Your task to perform on an android device: Add dell xps to the cart on amazon Image 0: 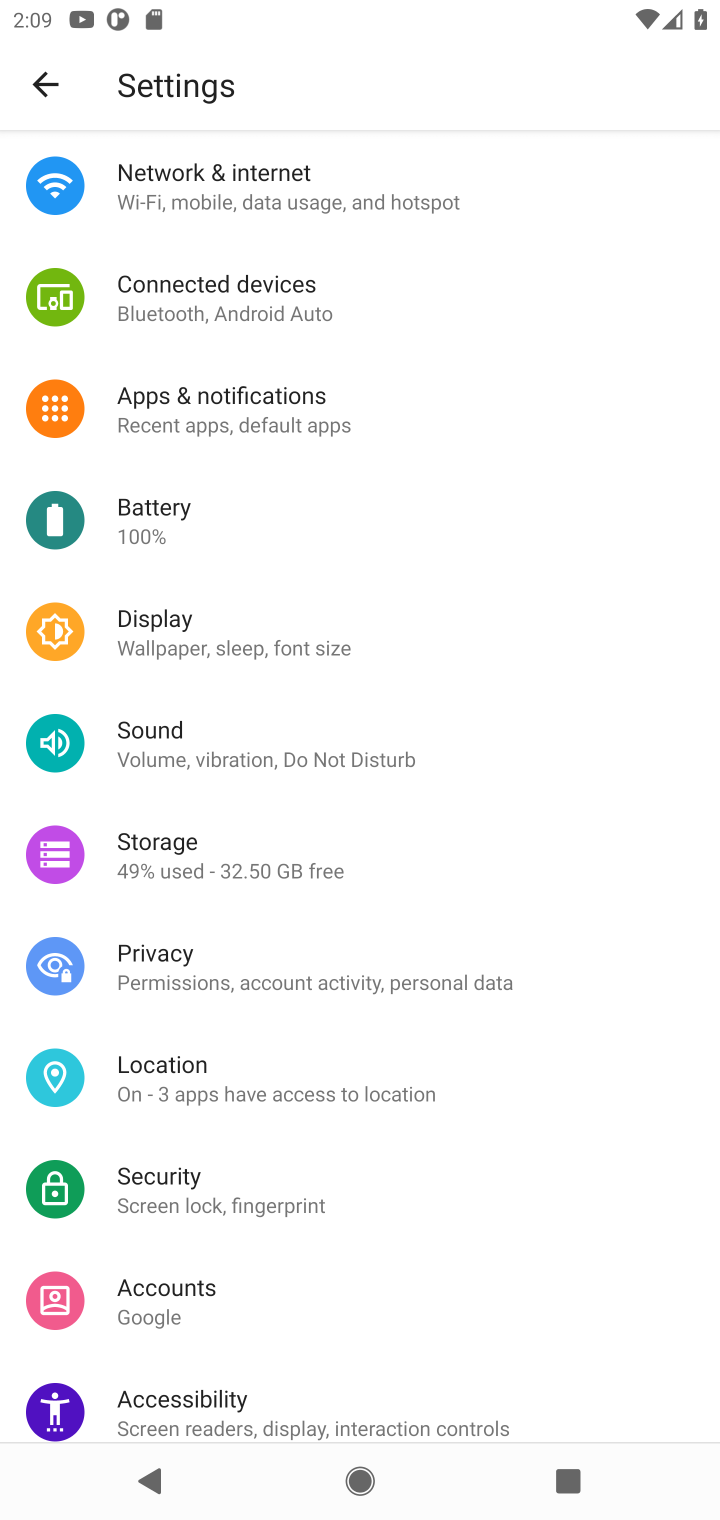
Step 0: press home button
Your task to perform on an android device: Add dell xps to the cart on amazon Image 1: 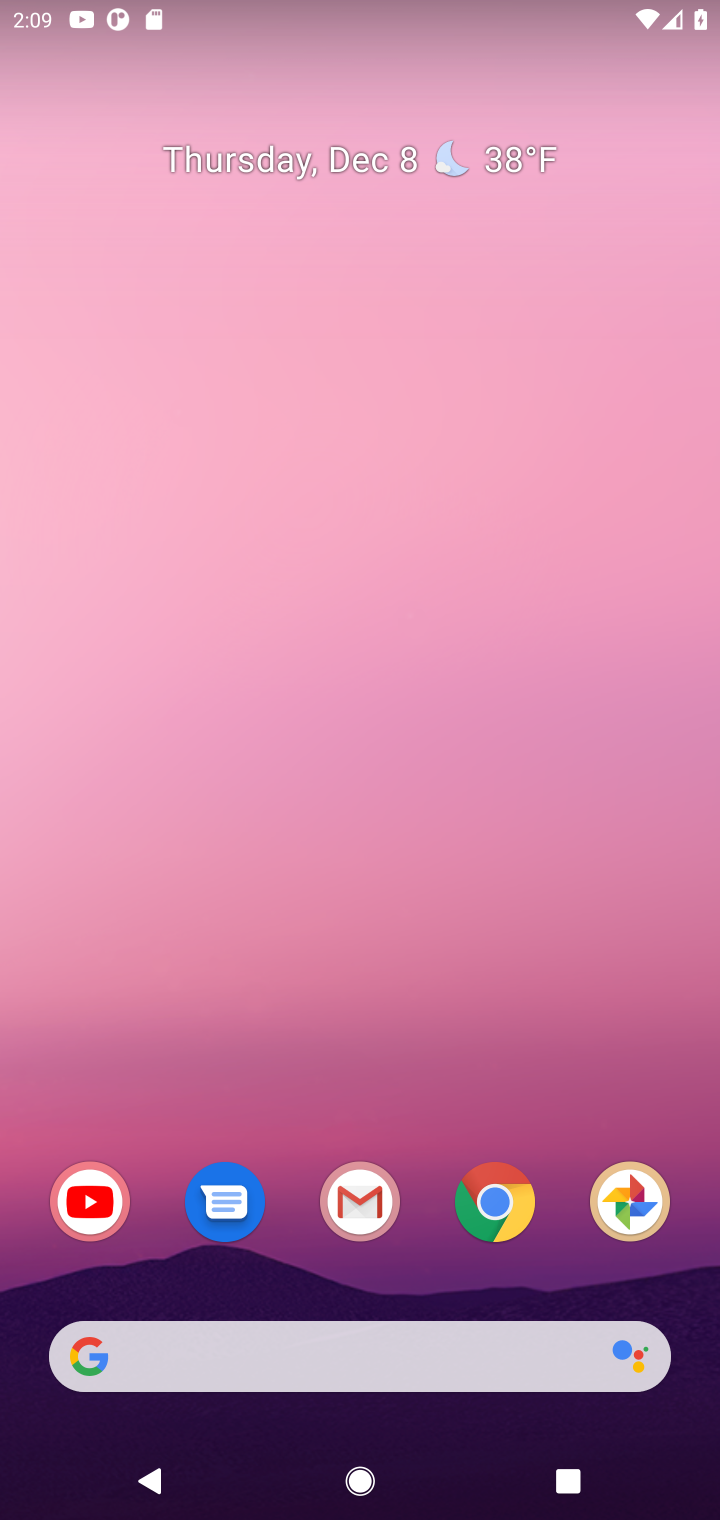
Step 1: click (497, 1215)
Your task to perform on an android device: Add dell xps to the cart on amazon Image 2: 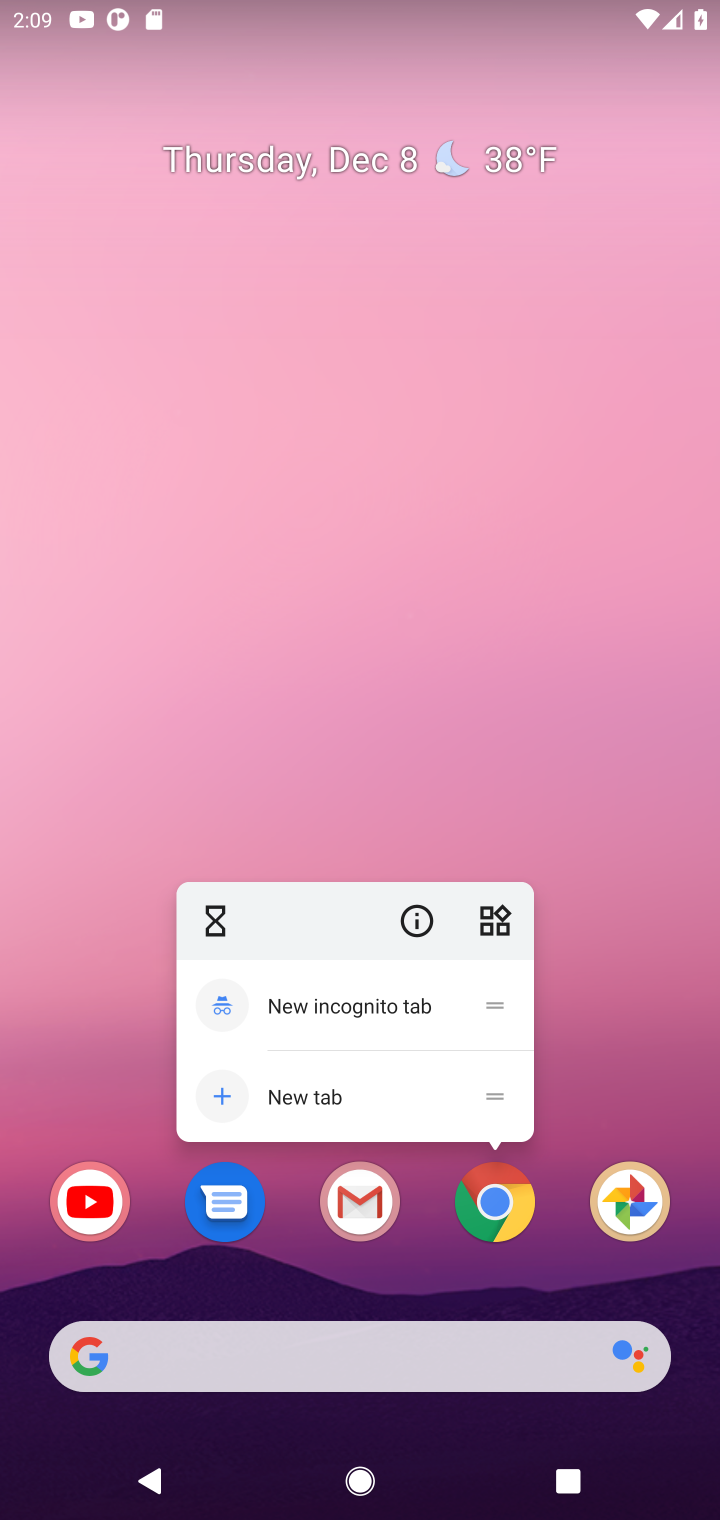
Step 2: click (497, 1215)
Your task to perform on an android device: Add dell xps to the cart on amazon Image 3: 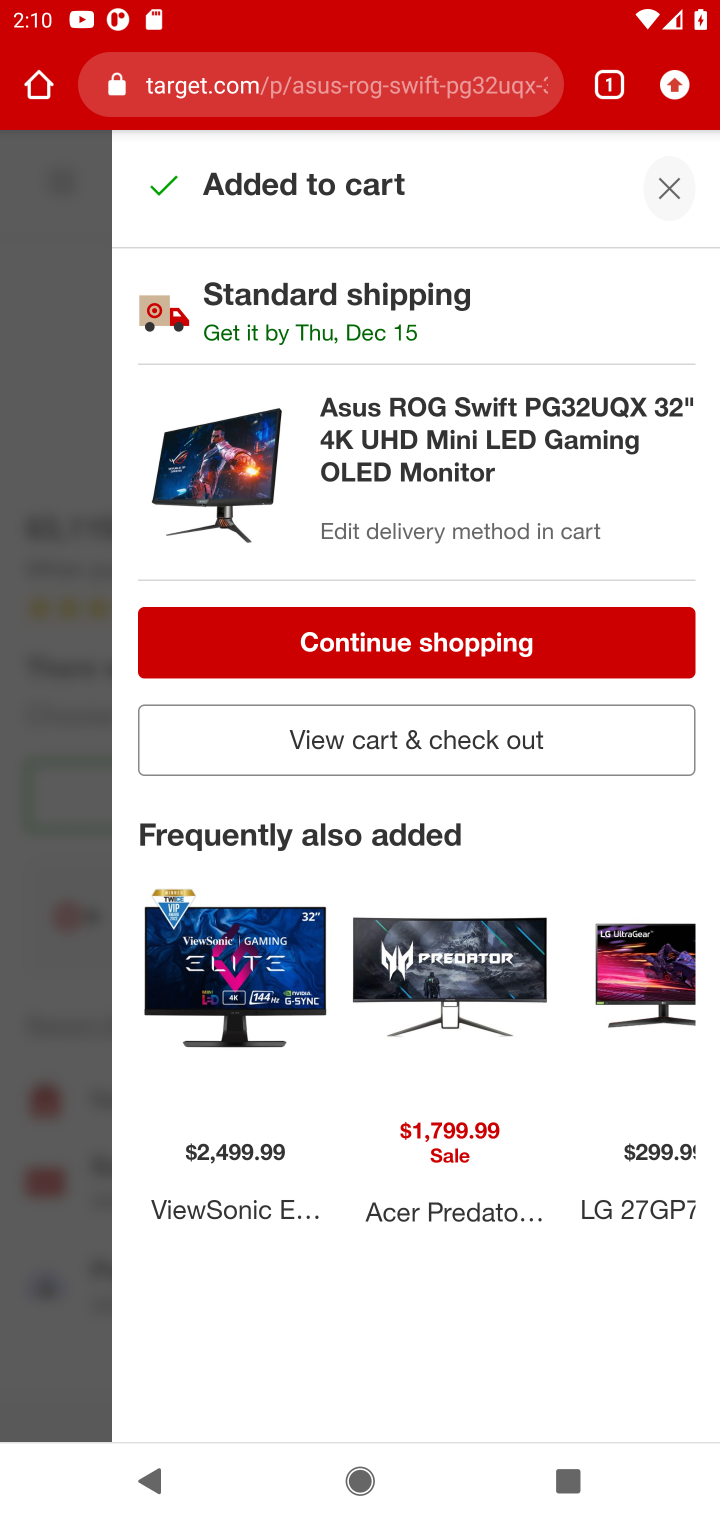
Step 3: click (401, 71)
Your task to perform on an android device: Add dell xps to the cart on amazon Image 4: 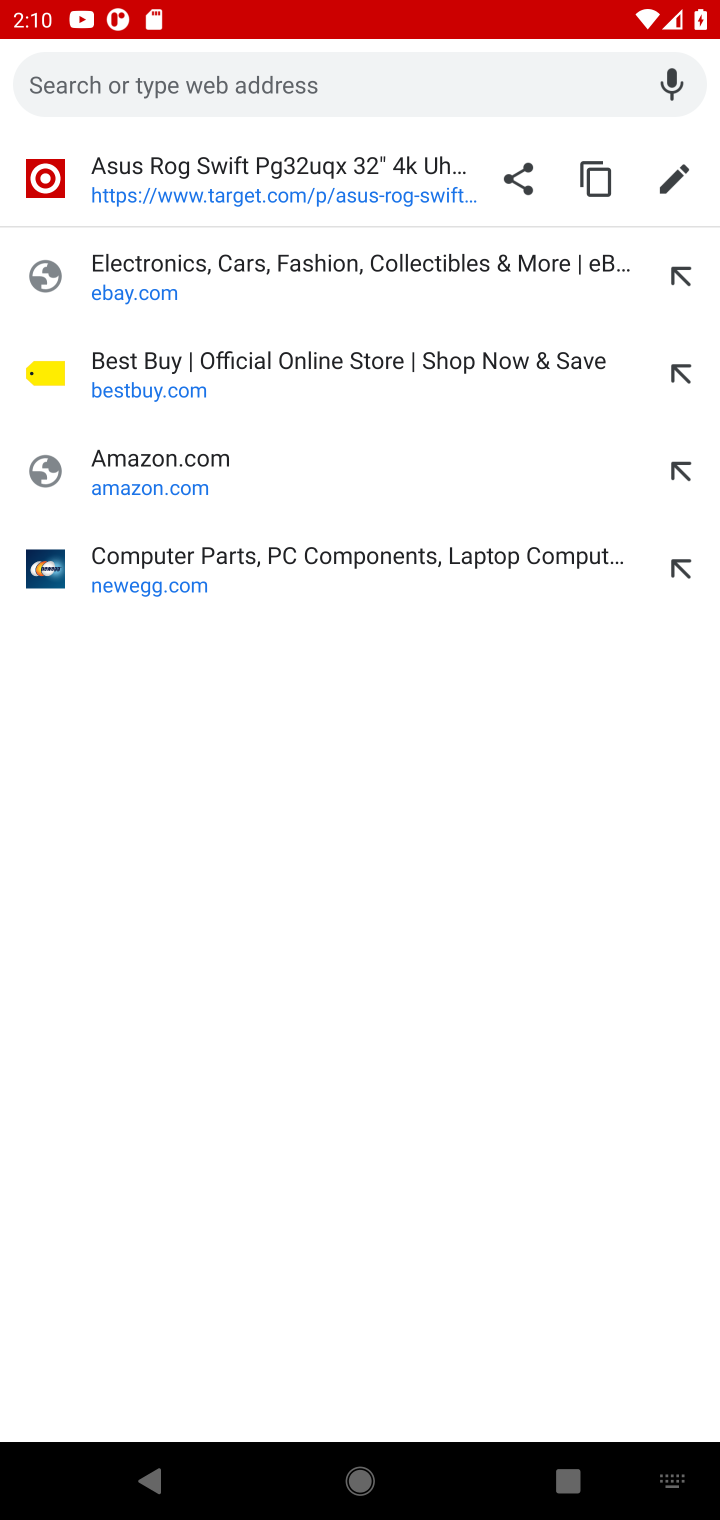
Step 4: type "amazon"
Your task to perform on an android device: Add dell xps to the cart on amazon Image 5: 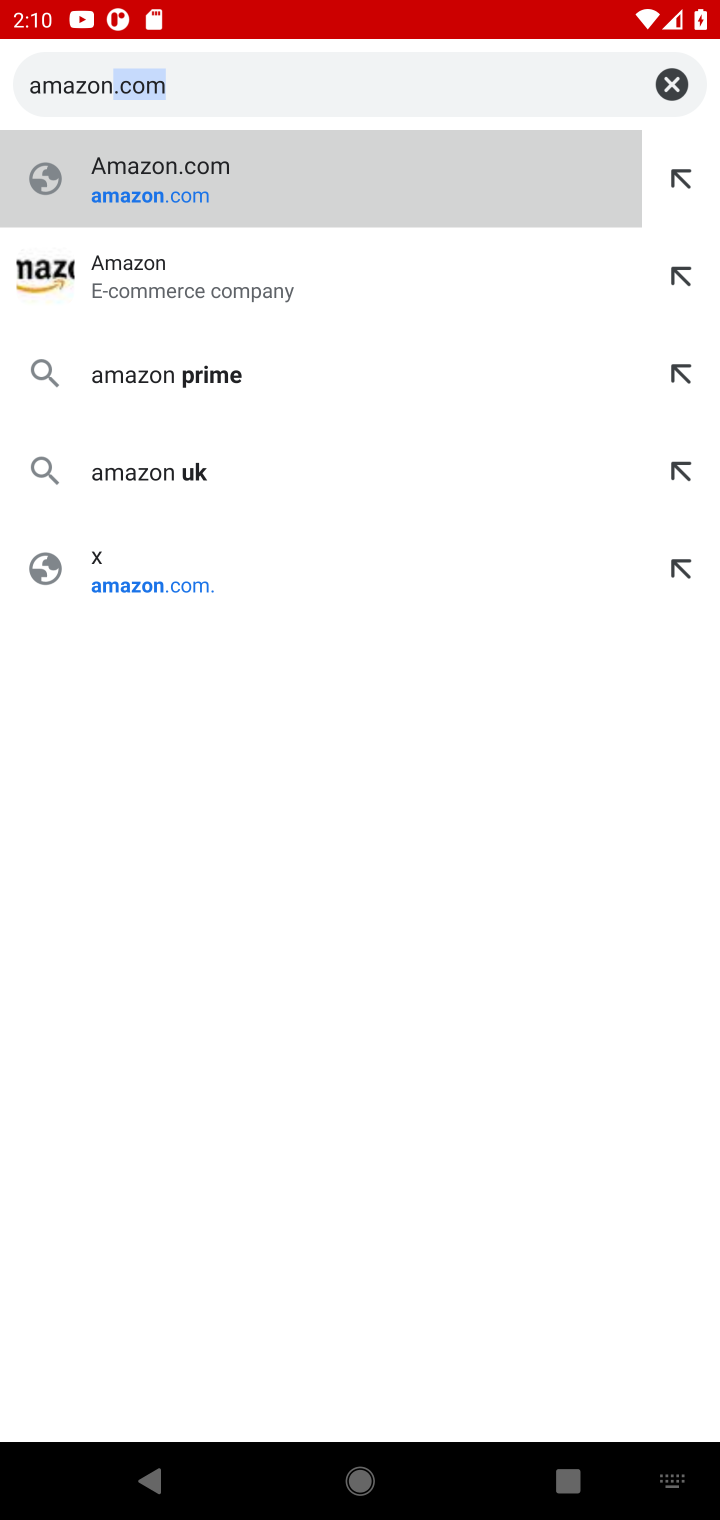
Step 5: click (323, 172)
Your task to perform on an android device: Add dell xps to the cart on amazon Image 6: 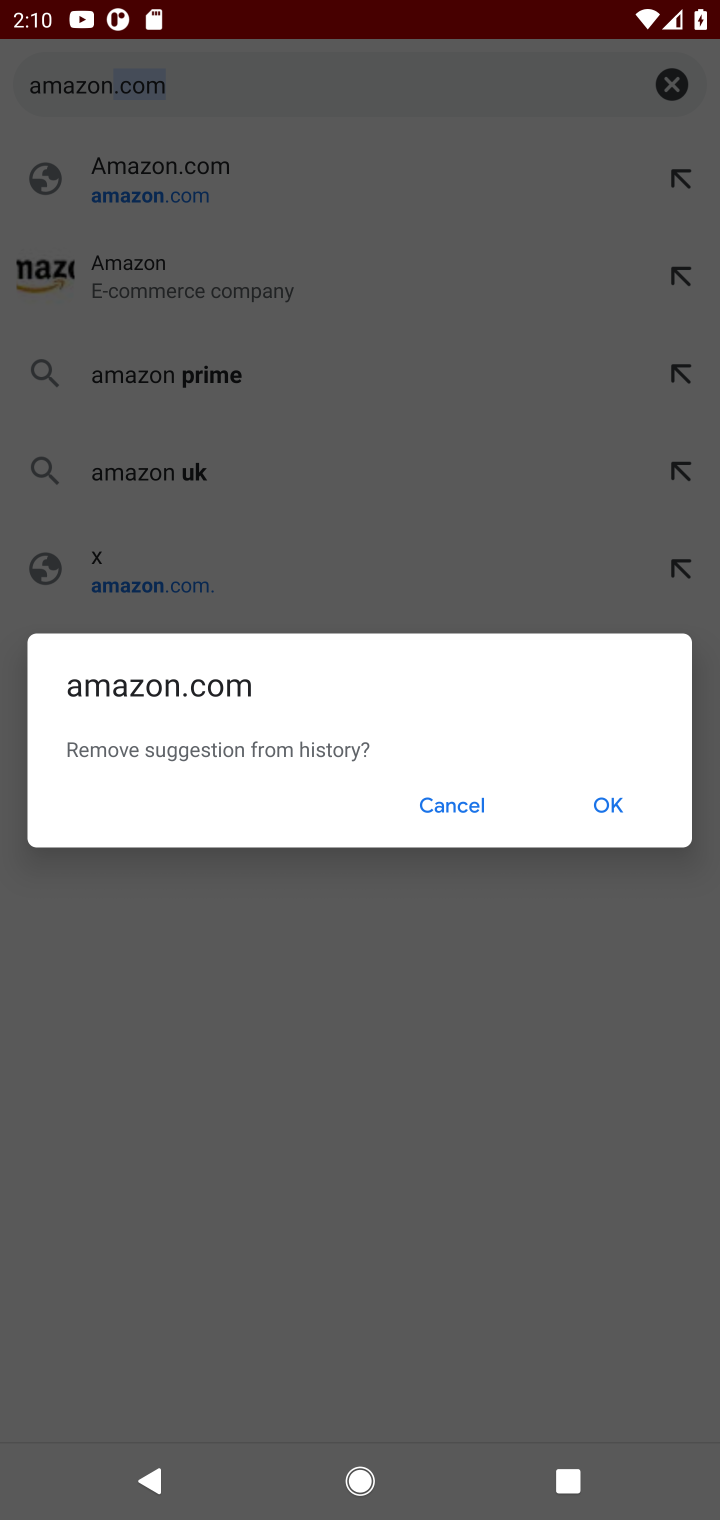
Step 6: click (605, 802)
Your task to perform on an android device: Add dell xps to the cart on amazon Image 7: 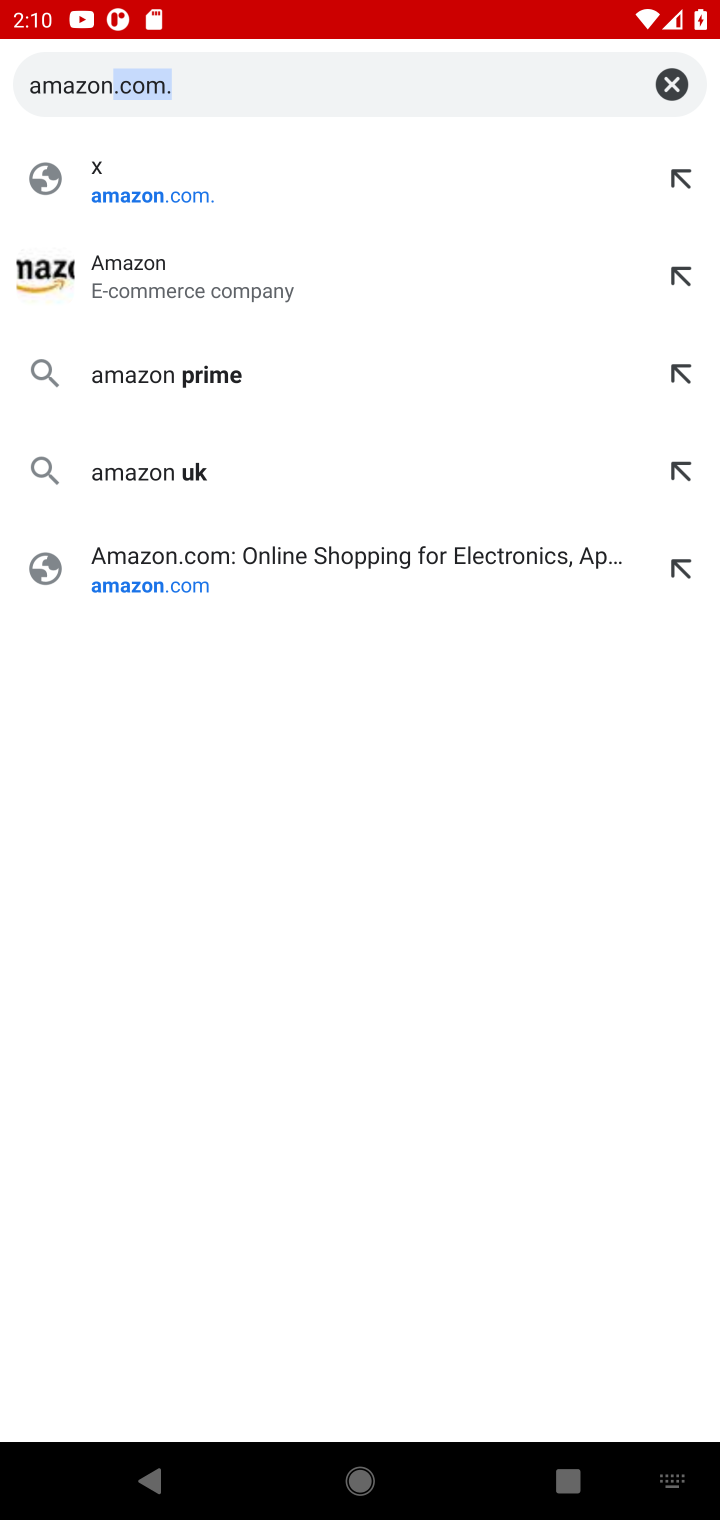
Step 7: click (225, 87)
Your task to perform on an android device: Add dell xps to the cart on amazon Image 8: 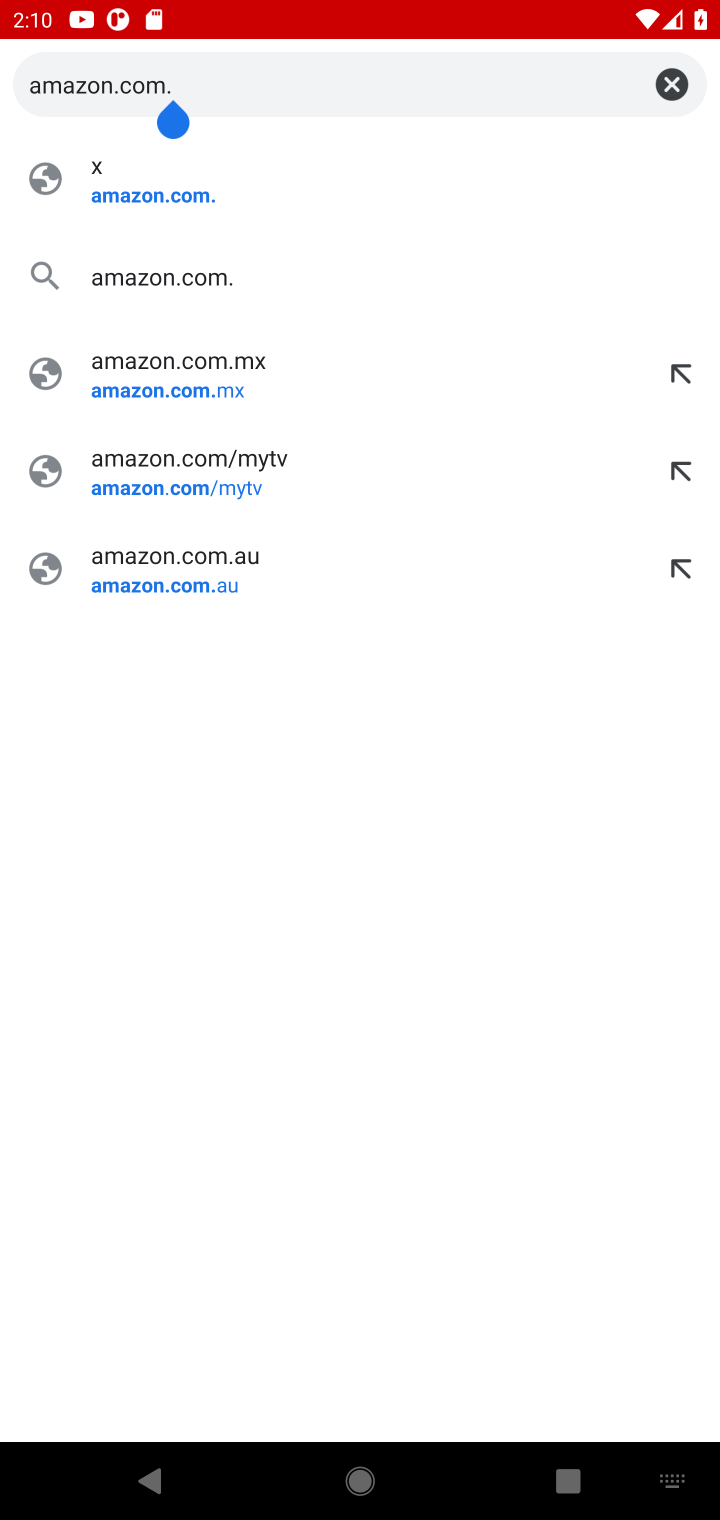
Step 8: click (201, 273)
Your task to perform on an android device: Add dell xps to the cart on amazon Image 9: 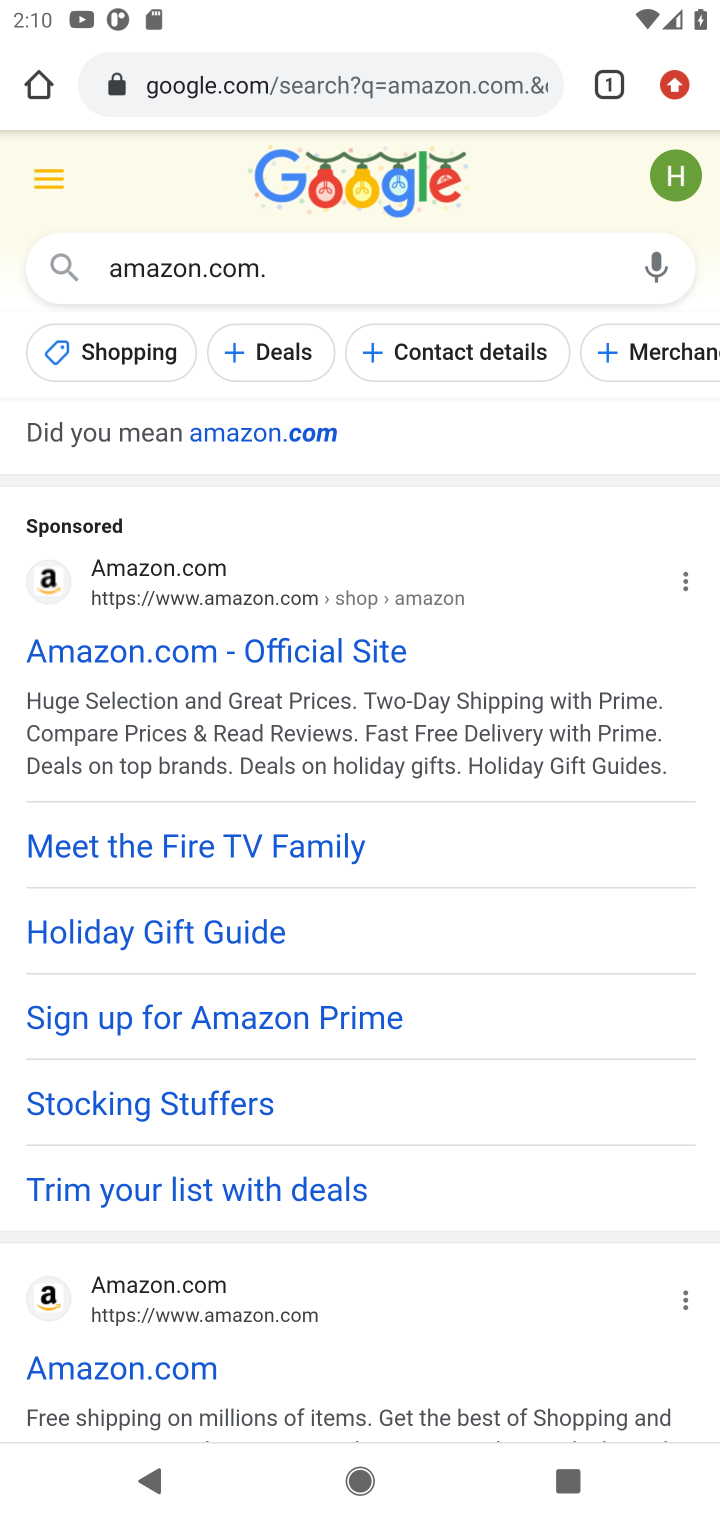
Step 9: click (264, 598)
Your task to perform on an android device: Add dell xps to the cart on amazon Image 10: 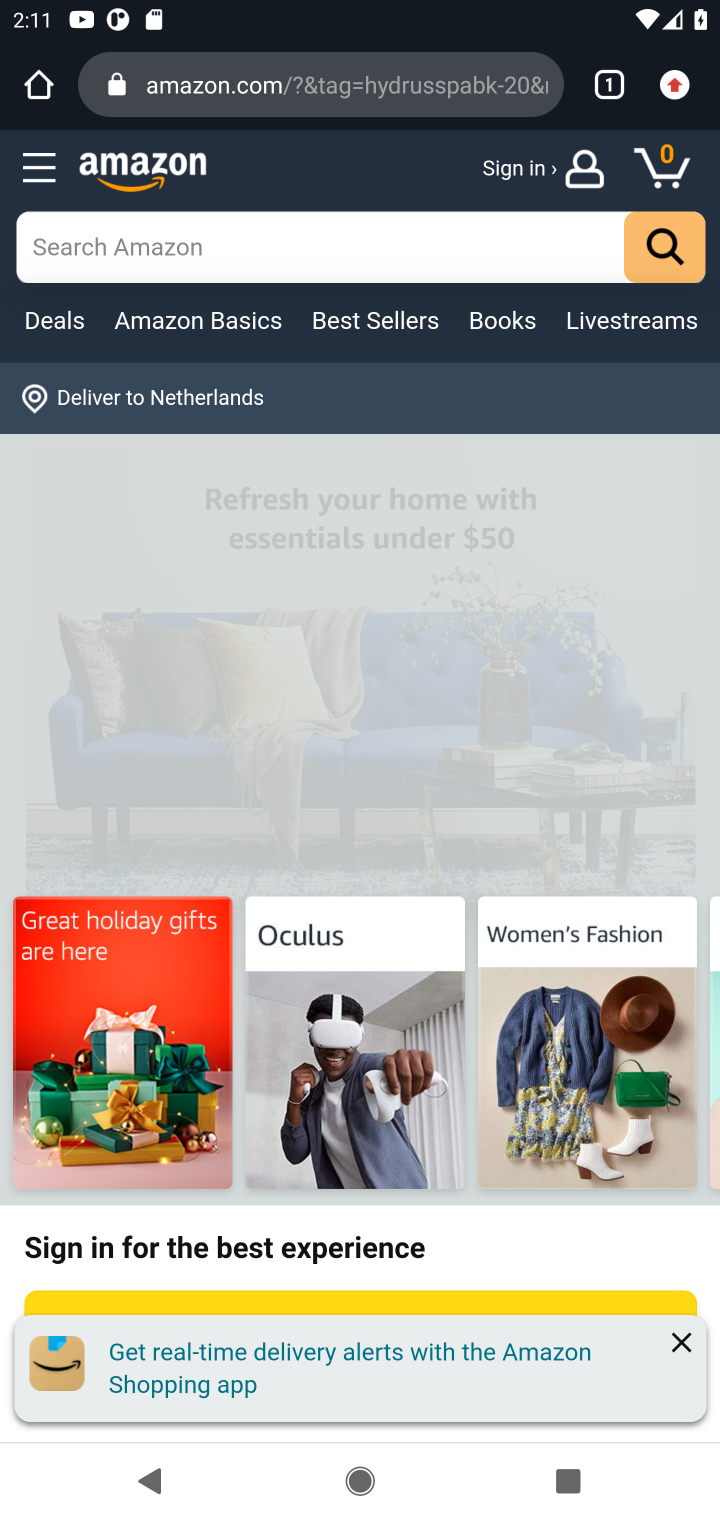
Step 10: click (530, 236)
Your task to perform on an android device: Add dell xps to the cart on amazon Image 11: 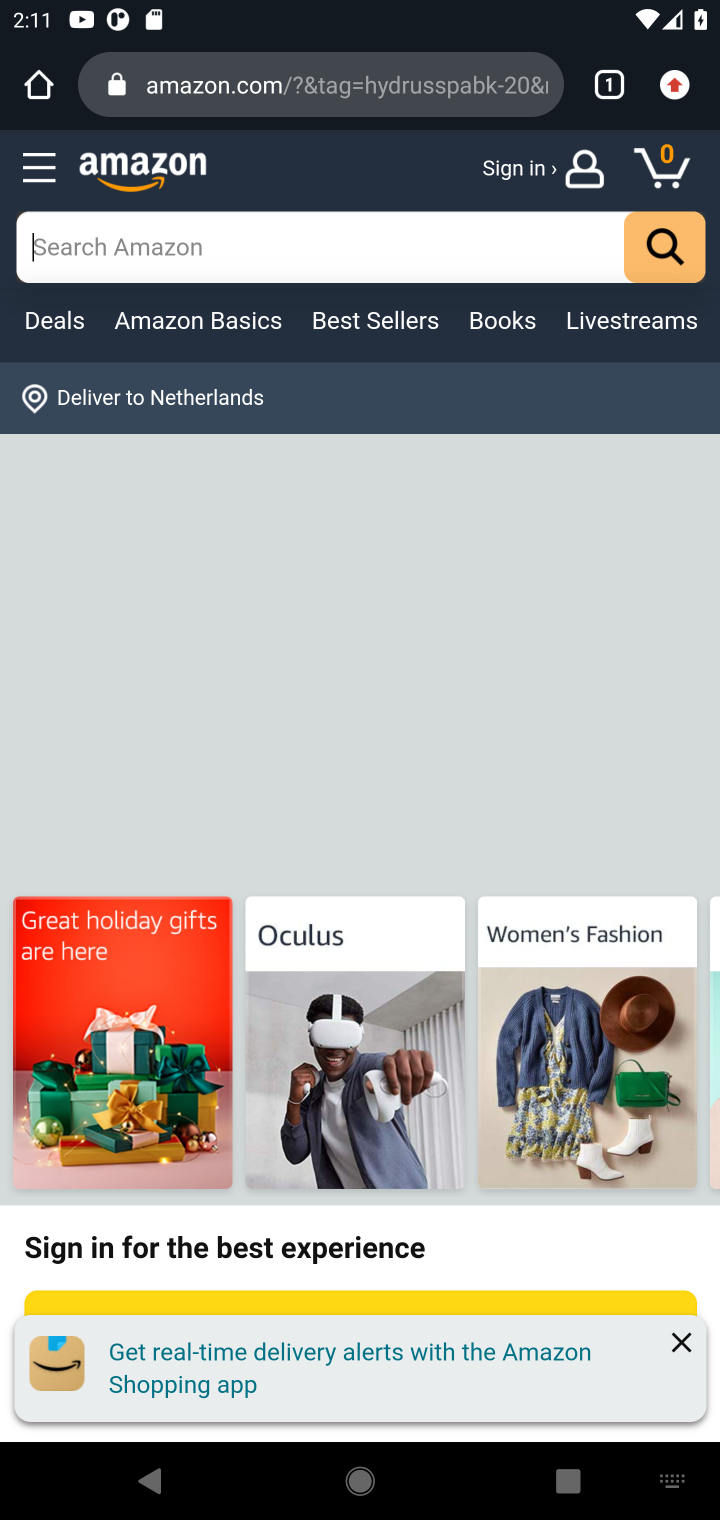
Step 11: press enter
Your task to perform on an android device: Add dell xps to the cart on amazon Image 12: 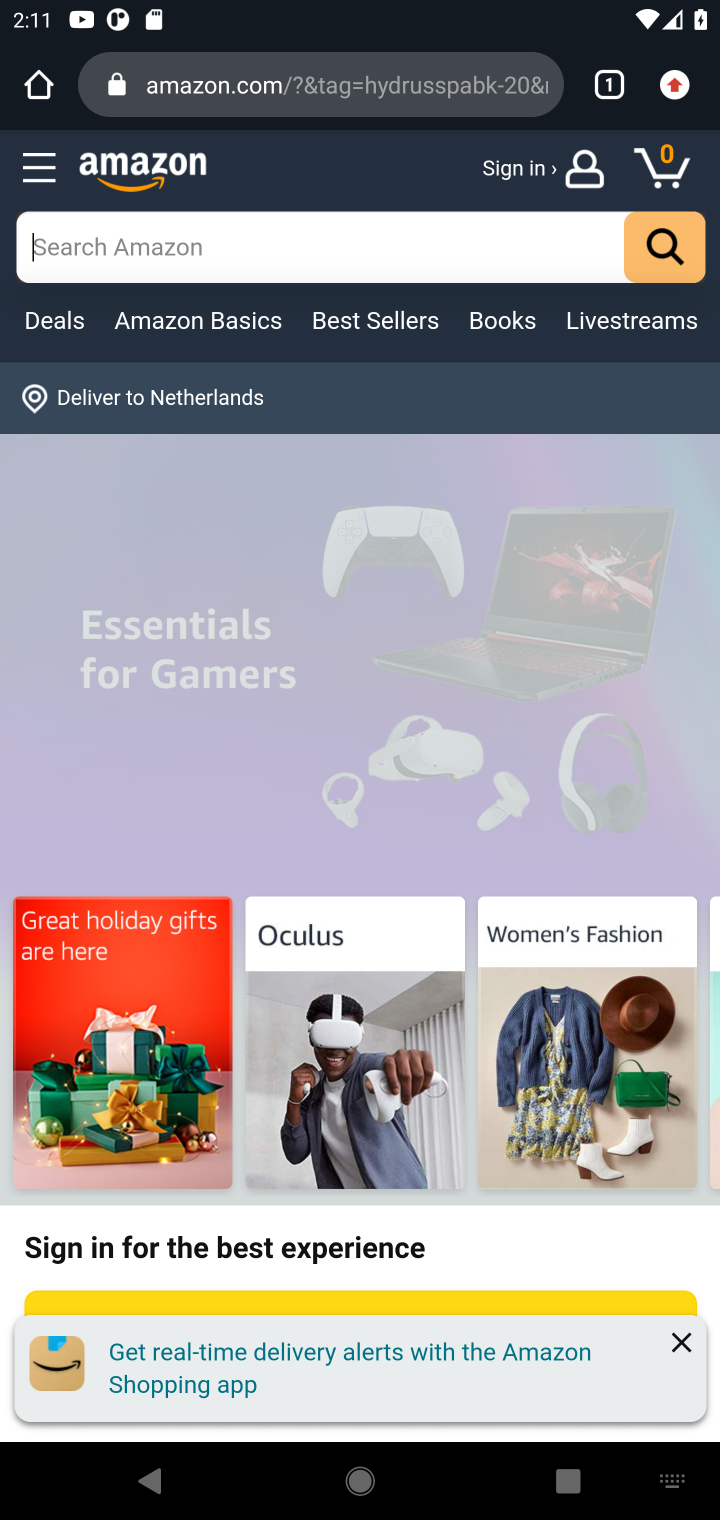
Step 12: type "dell xps"
Your task to perform on an android device: Add dell xps to the cart on amazon Image 13: 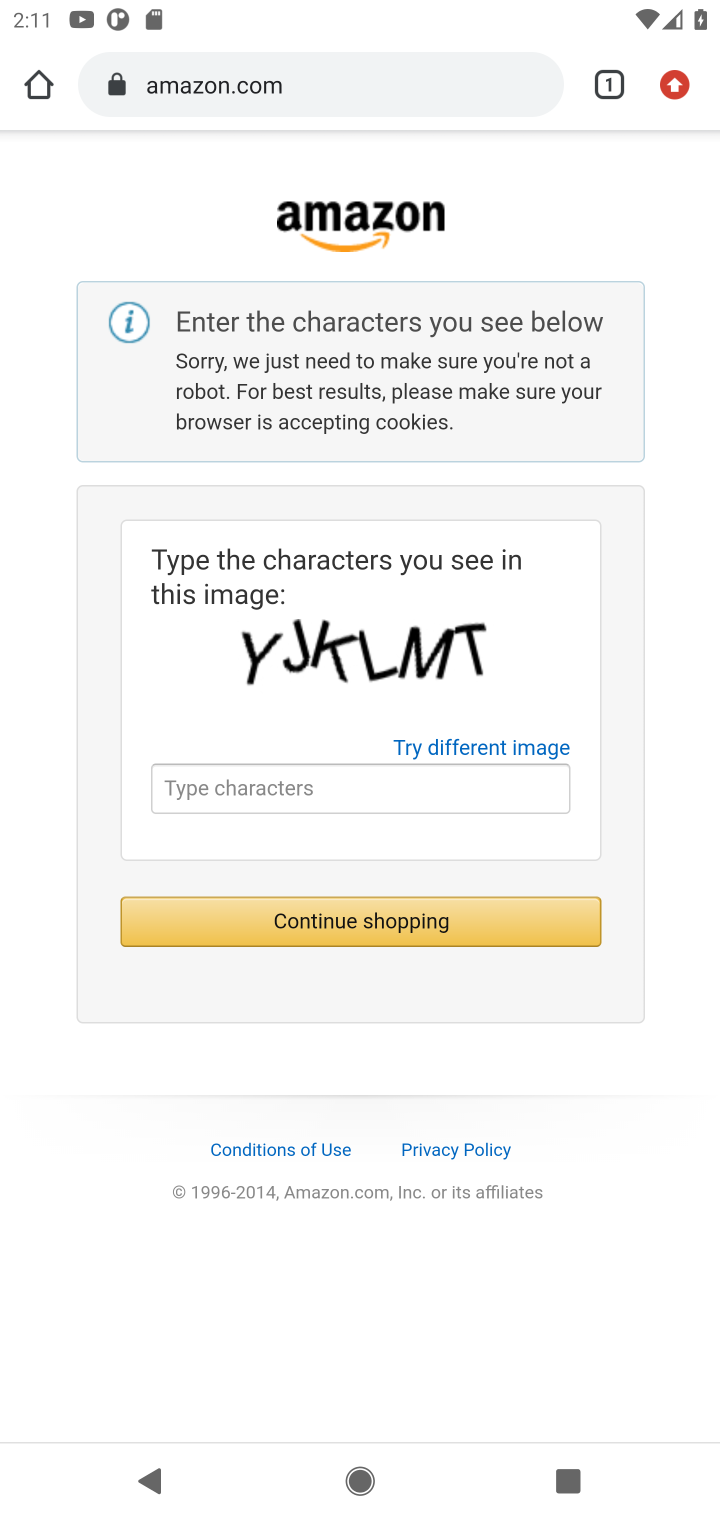
Step 13: press back button
Your task to perform on an android device: Add dell xps to the cart on amazon Image 14: 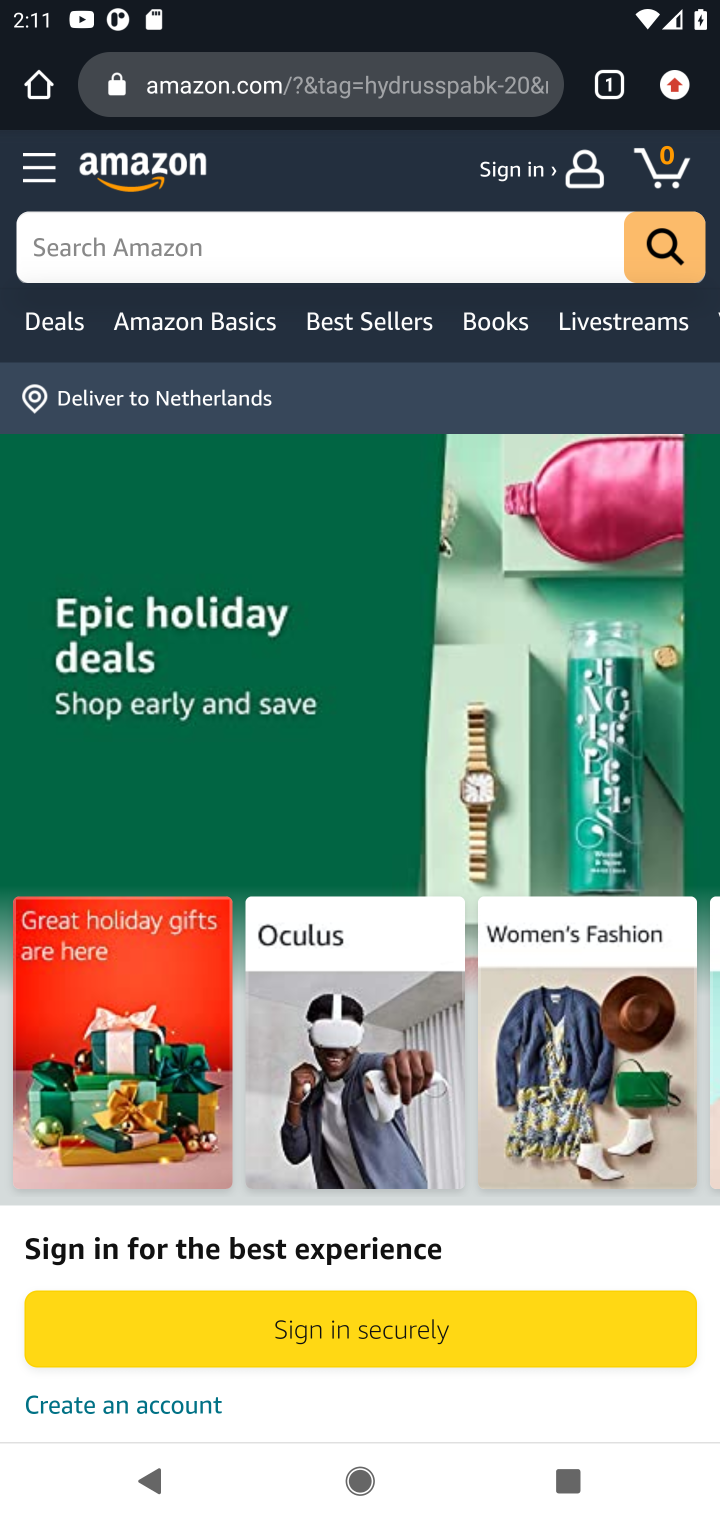
Step 14: click (387, 257)
Your task to perform on an android device: Add dell xps to the cart on amazon Image 15: 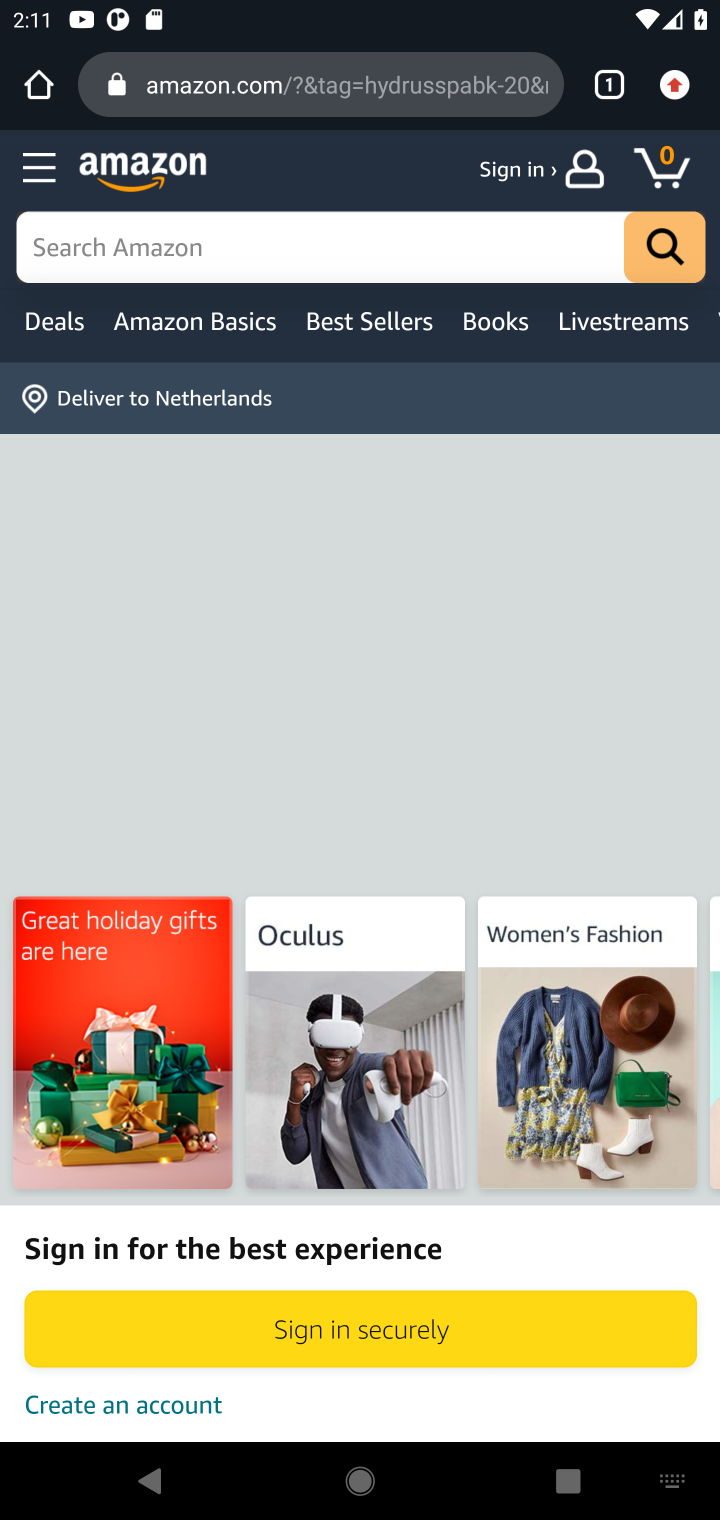
Step 15: type "dell xps"
Your task to perform on an android device: Add dell xps to the cart on amazon Image 16: 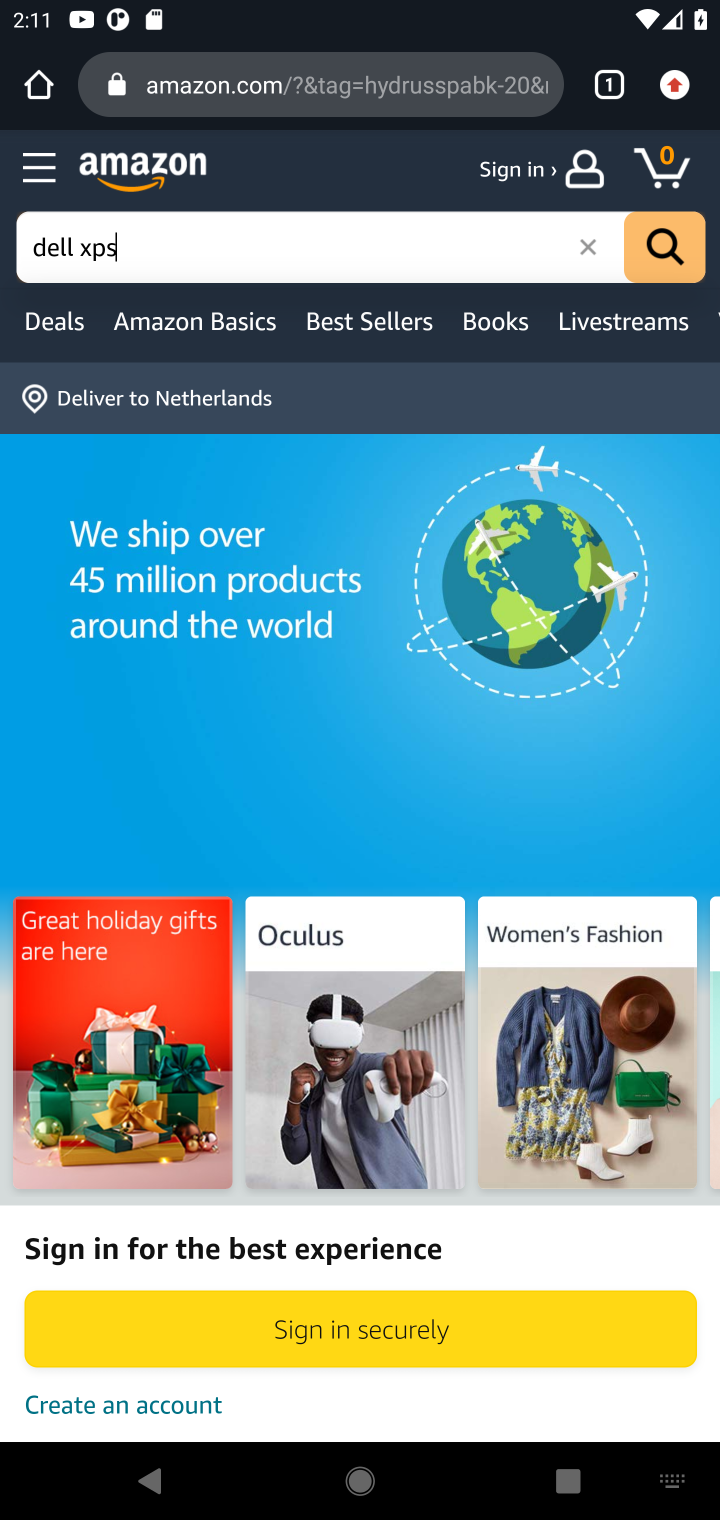
Step 16: press enter
Your task to perform on an android device: Add dell xps to the cart on amazon Image 17: 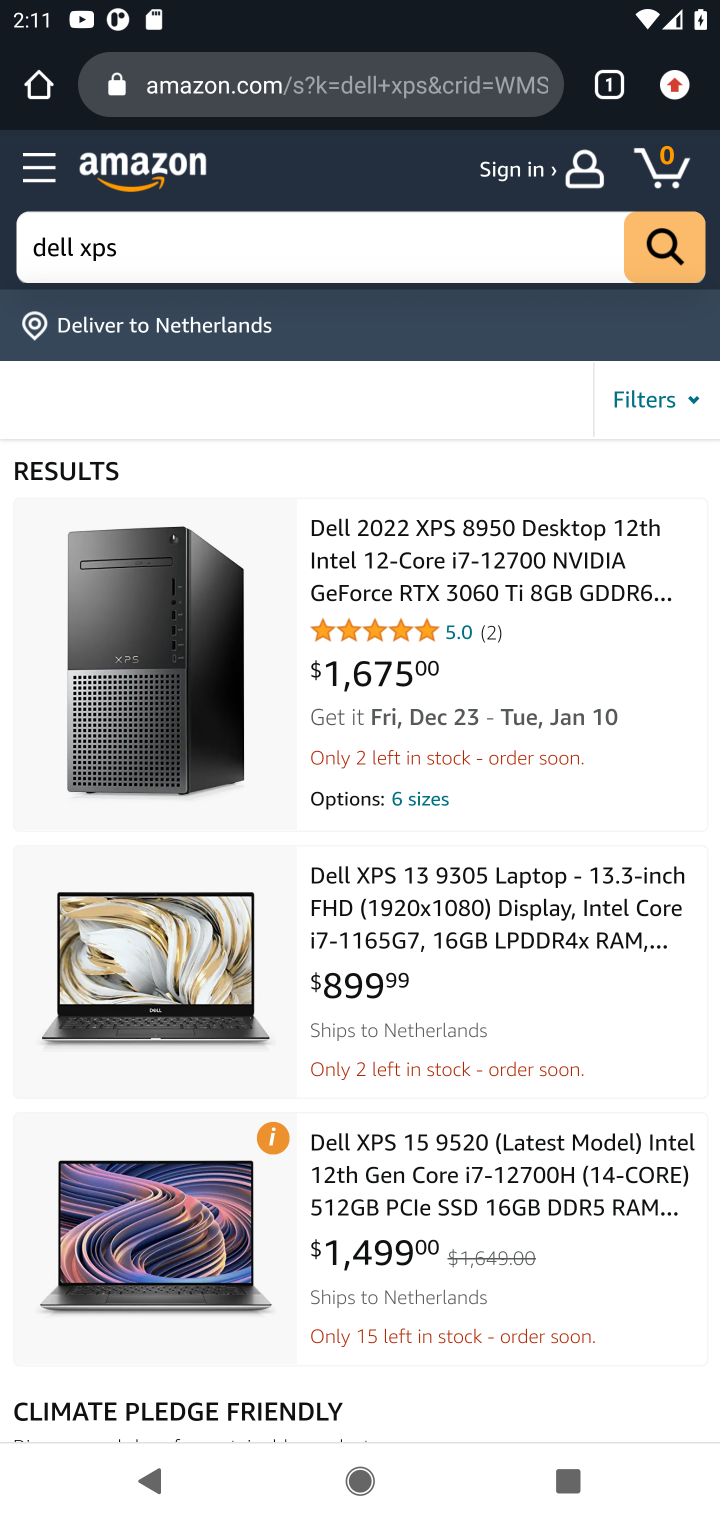
Step 17: click (158, 965)
Your task to perform on an android device: Add dell xps to the cart on amazon Image 18: 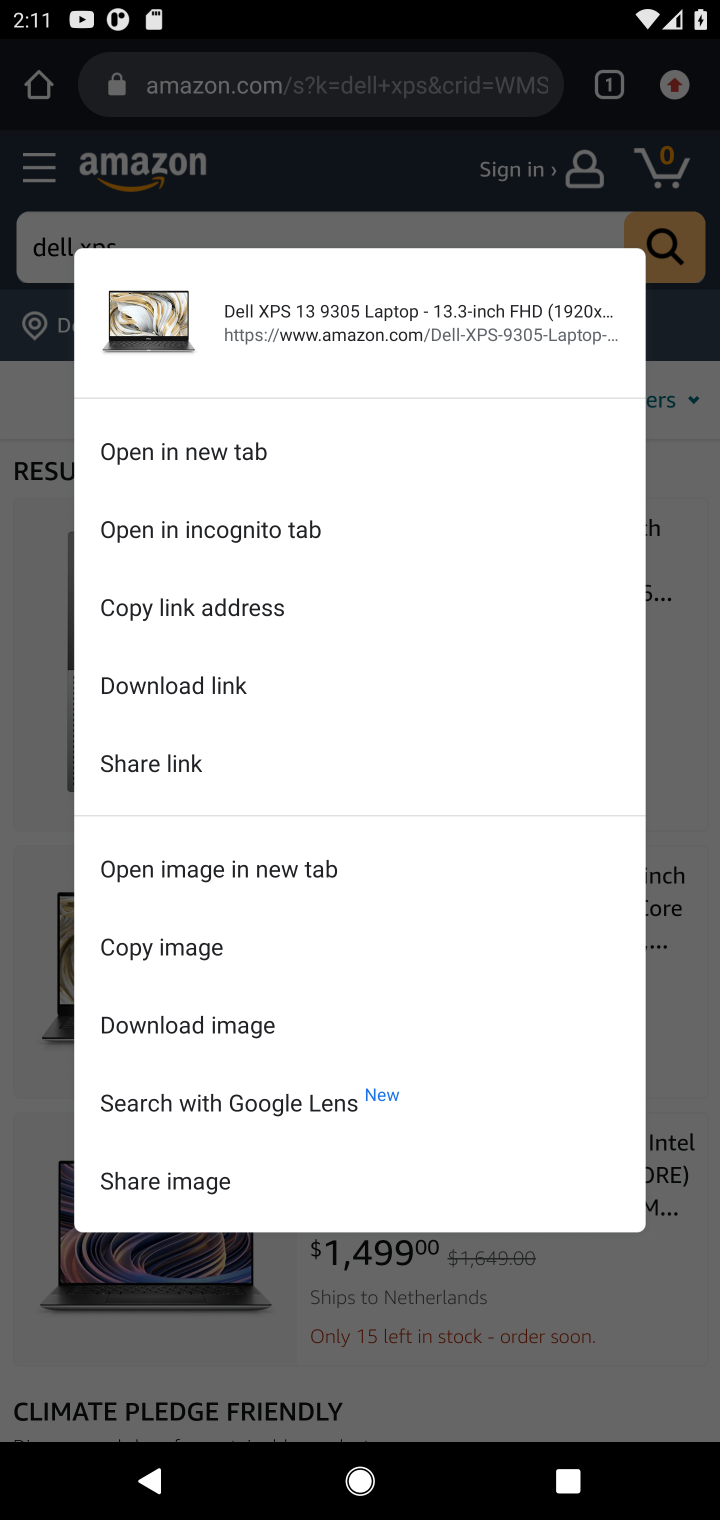
Step 18: click (60, 971)
Your task to perform on an android device: Add dell xps to the cart on amazon Image 19: 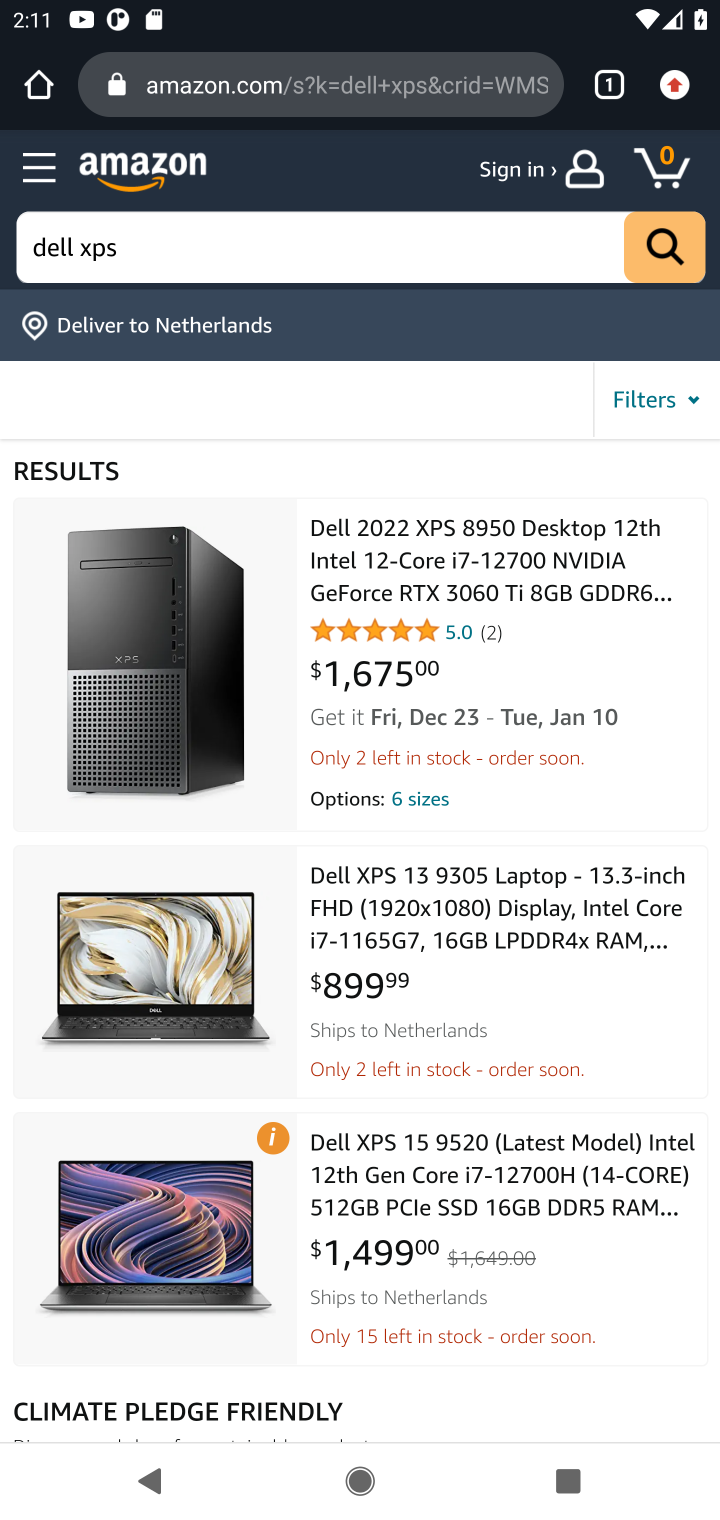
Step 19: click (162, 953)
Your task to perform on an android device: Add dell xps to the cart on amazon Image 20: 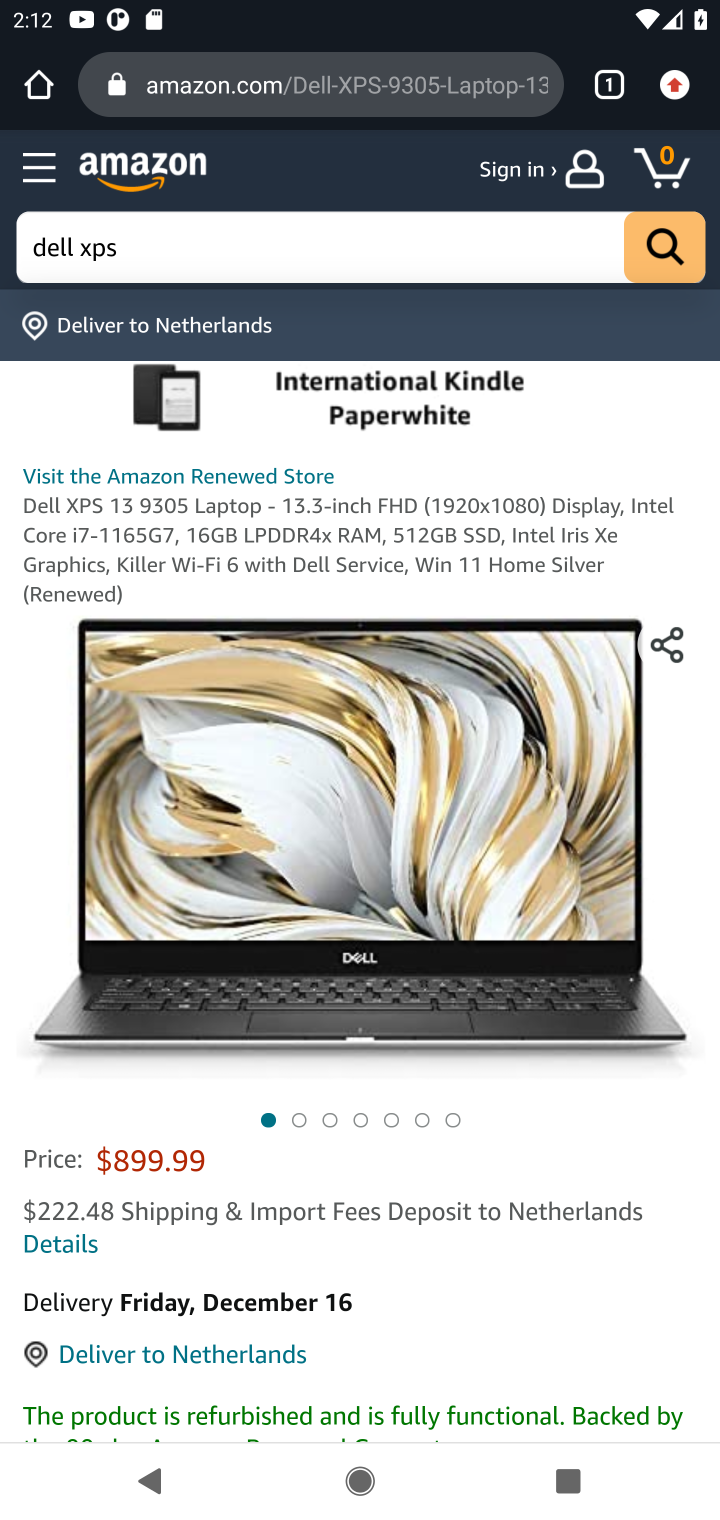
Step 20: drag from (591, 1123) to (646, 609)
Your task to perform on an android device: Add dell xps to the cart on amazon Image 21: 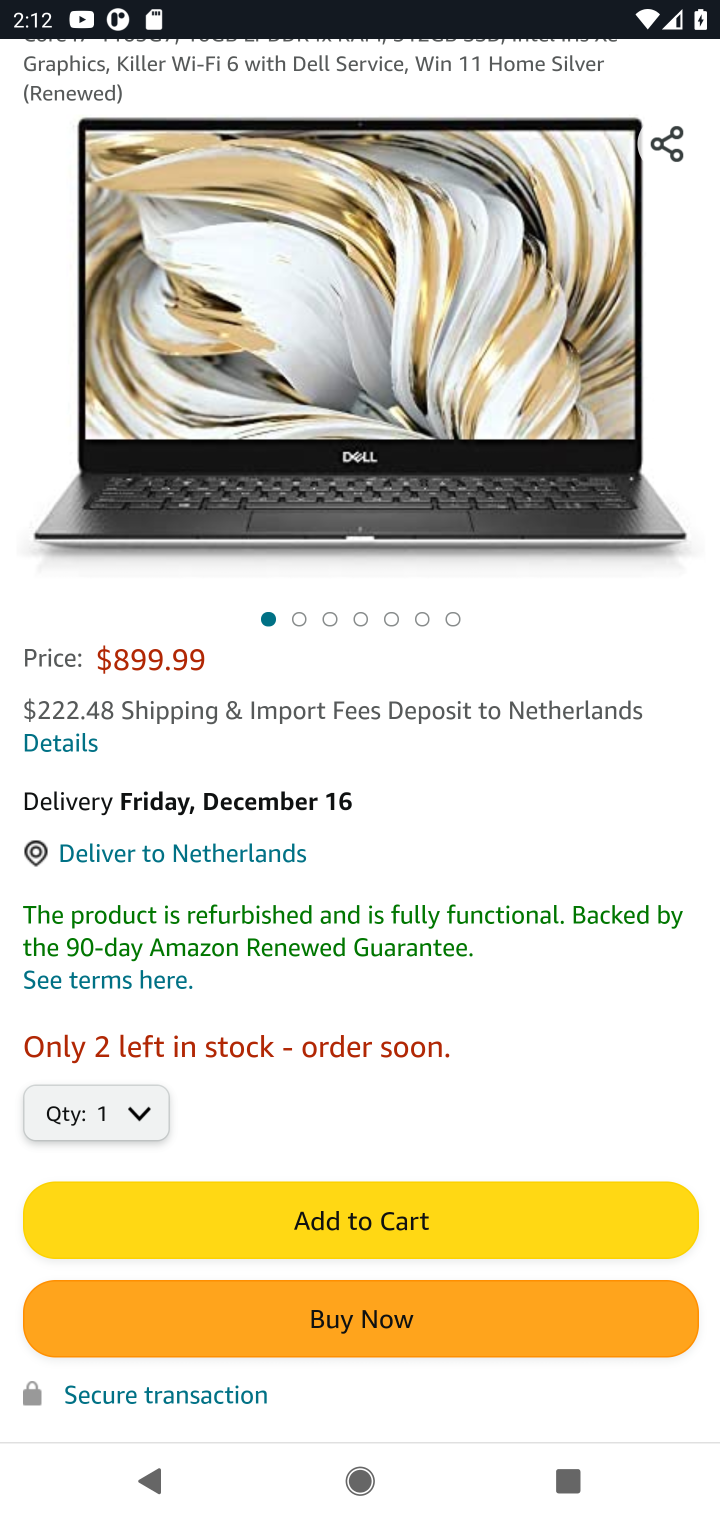
Step 21: click (426, 1210)
Your task to perform on an android device: Add dell xps to the cart on amazon Image 22: 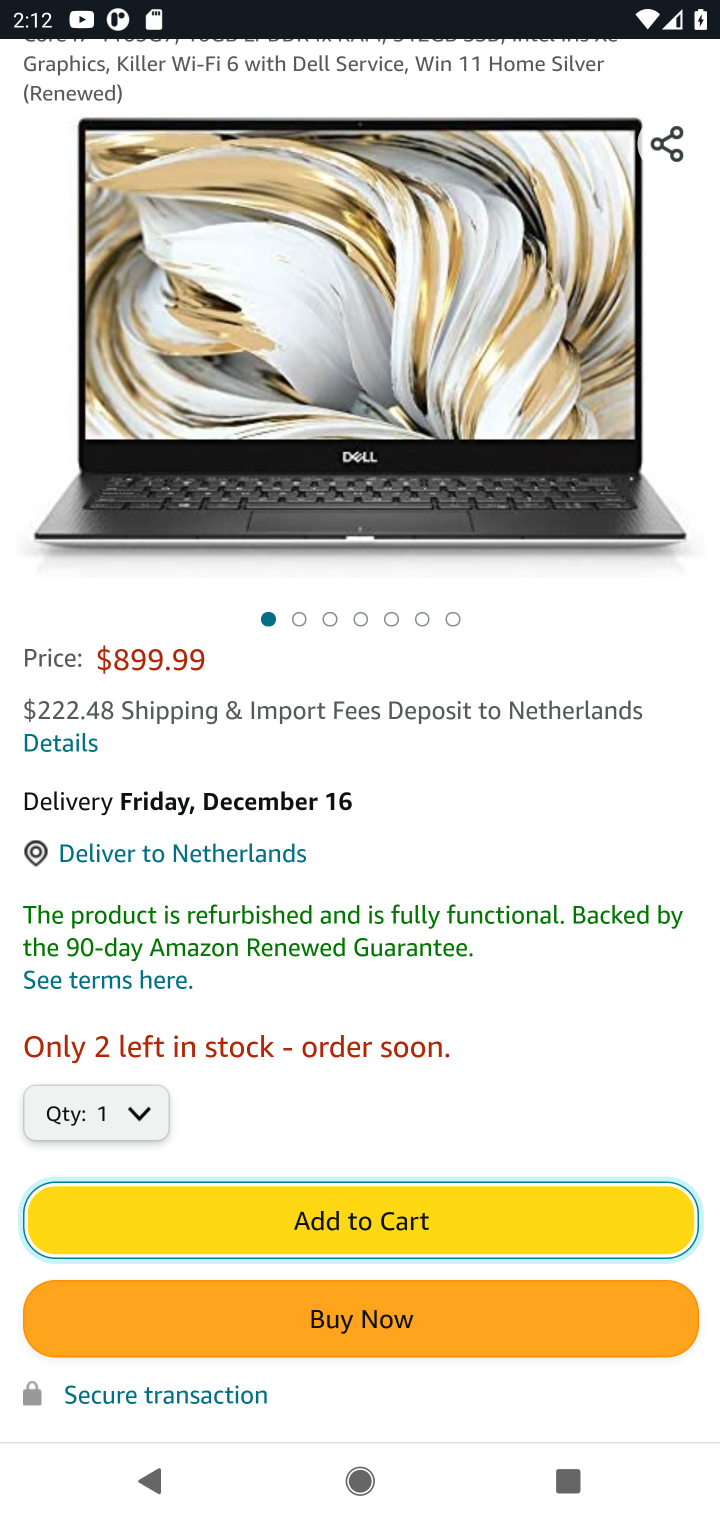
Step 22: click (426, 1210)
Your task to perform on an android device: Add dell xps to the cart on amazon Image 23: 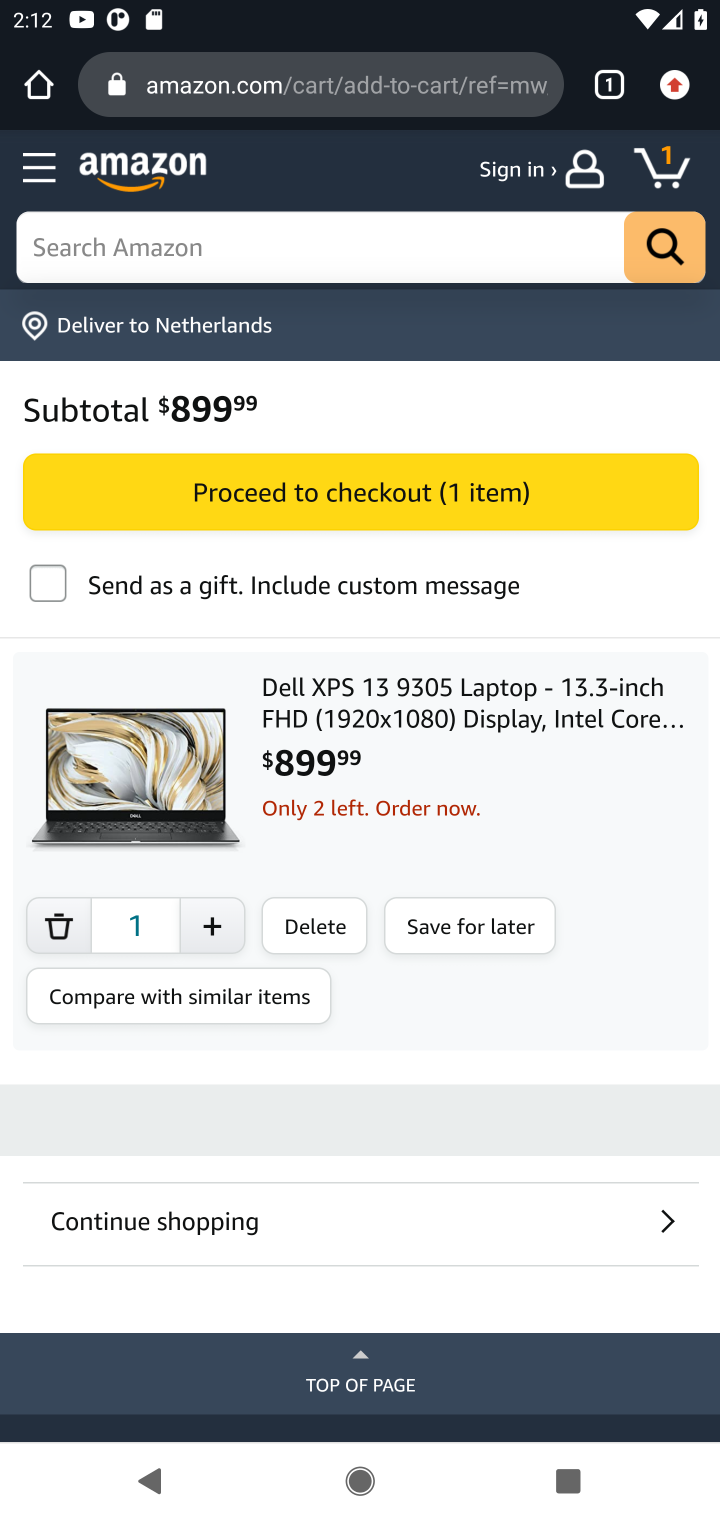
Step 23: task complete